Your task to perform on an android device: change the clock display to analog Image 0: 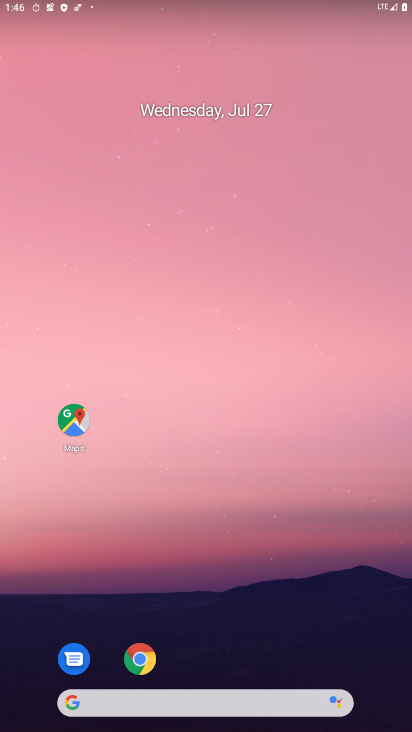
Step 0: drag from (314, 441) to (356, 50)
Your task to perform on an android device: change the clock display to analog Image 1: 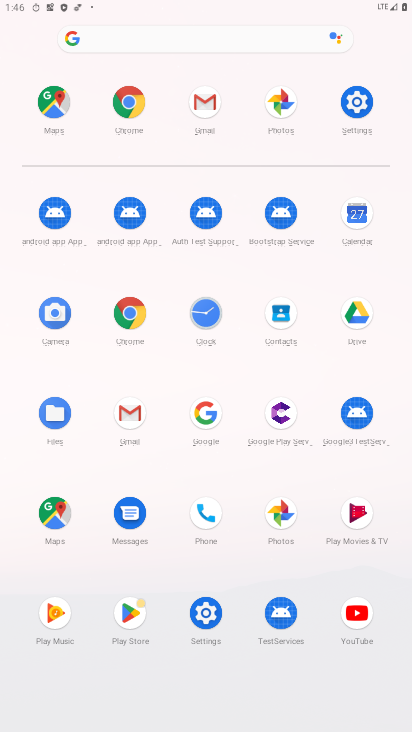
Step 1: click (206, 308)
Your task to perform on an android device: change the clock display to analog Image 2: 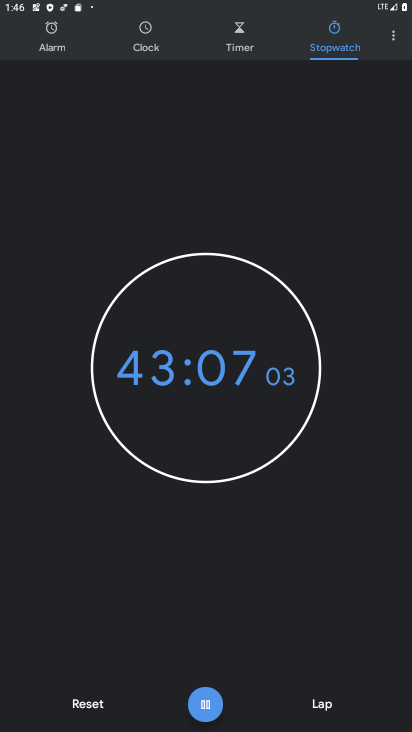
Step 2: click (389, 38)
Your task to perform on an android device: change the clock display to analog Image 3: 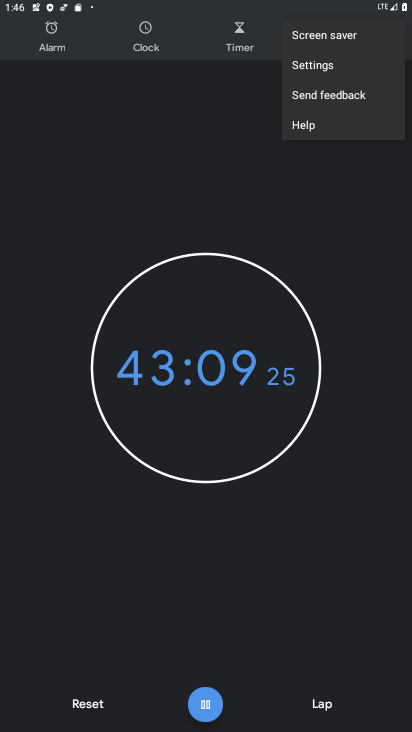
Step 3: click (319, 60)
Your task to perform on an android device: change the clock display to analog Image 4: 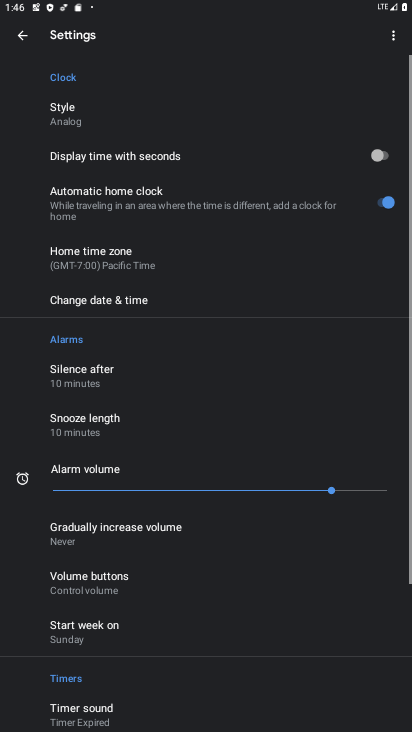
Step 4: click (88, 116)
Your task to perform on an android device: change the clock display to analog Image 5: 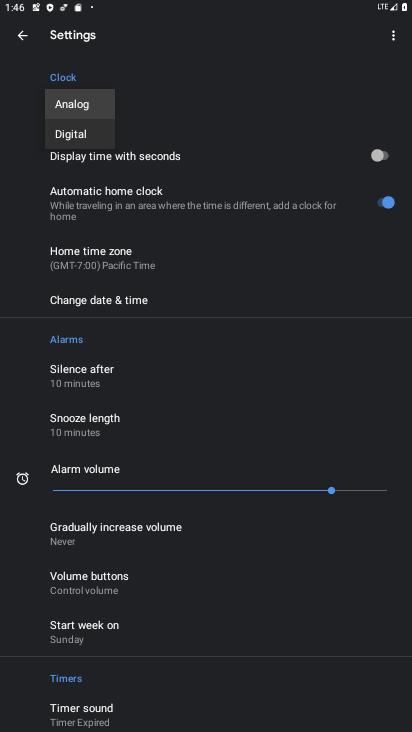
Step 5: click (85, 104)
Your task to perform on an android device: change the clock display to analog Image 6: 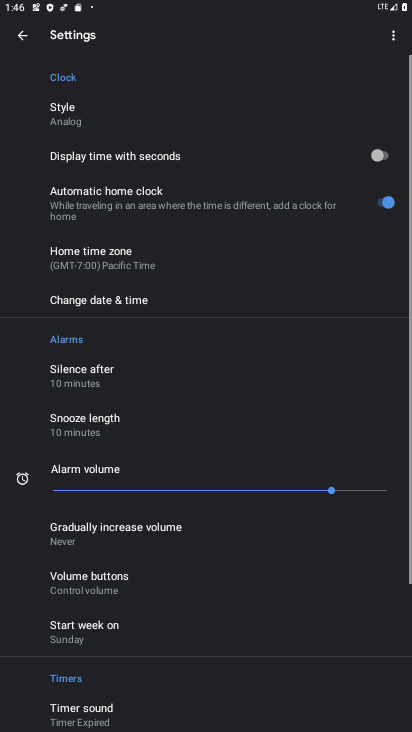
Step 6: task complete